Your task to perform on an android device: turn off location Image 0: 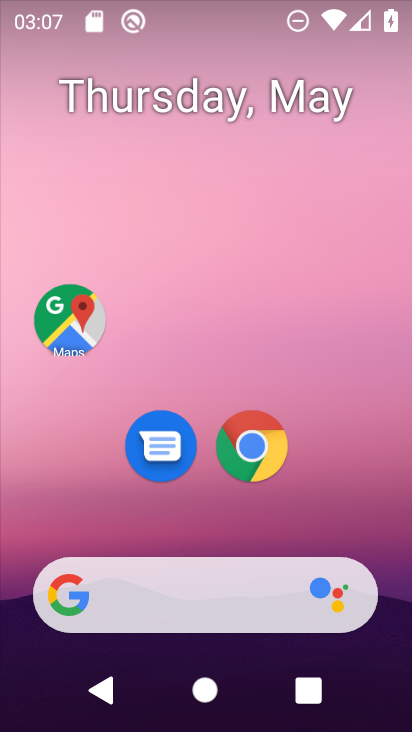
Step 0: drag from (368, 506) to (374, 42)
Your task to perform on an android device: turn off location Image 1: 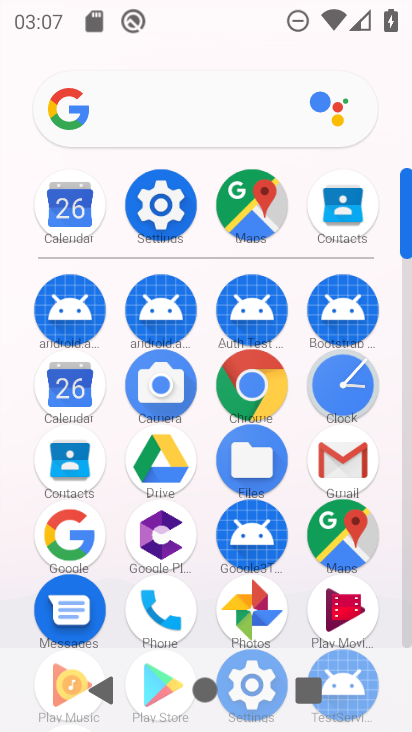
Step 1: click (159, 203)
Your task to perform on an android device: turn off location Image 2: 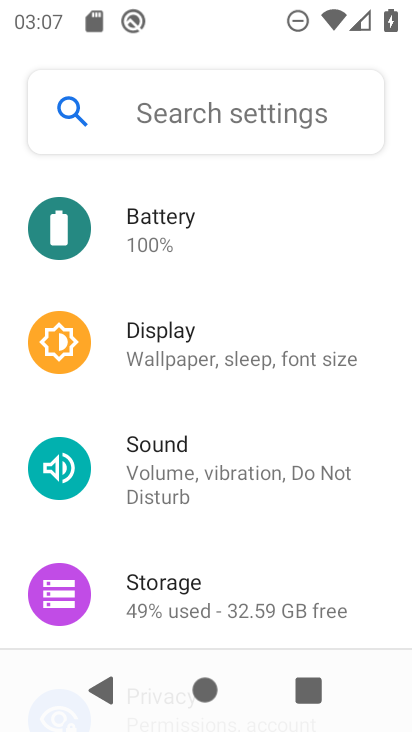
Step 2: drag from (235, 493) to (192, 148)
Your task to perform on an android device: turn off location Image 3: 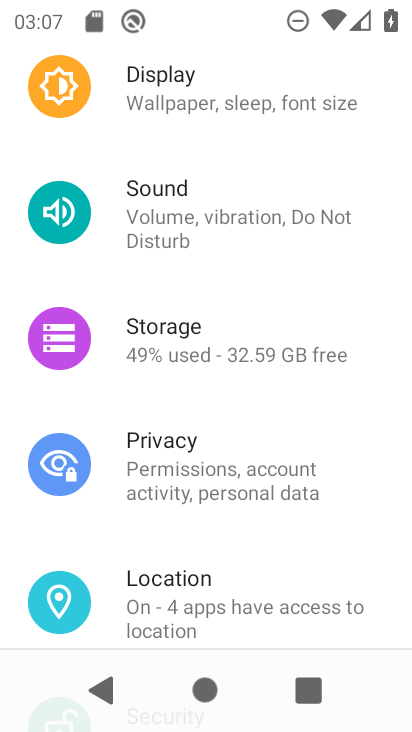
Step 3: click (175, 600)
Your task to perform on an android device: turn off location Image 4: 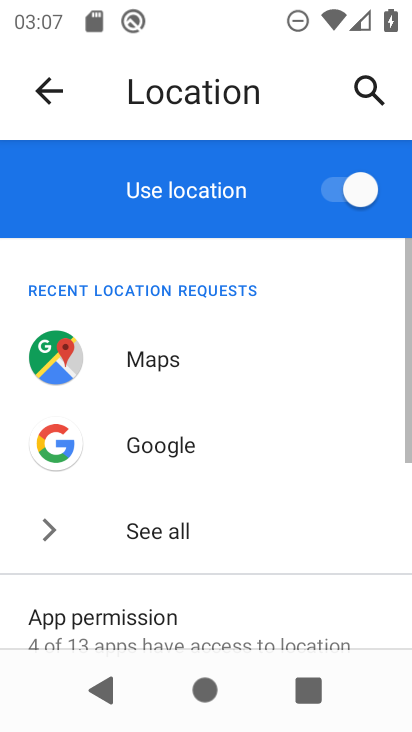
Step 4: click (350, 196)
Your task to perform on an android device: turn off location Image 5: 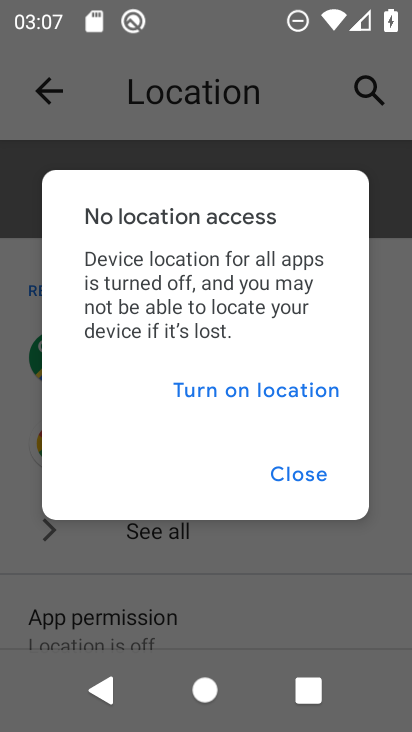
Step 5: click (295, 471)
Your task to perform on an android device: turn off location Image 6: 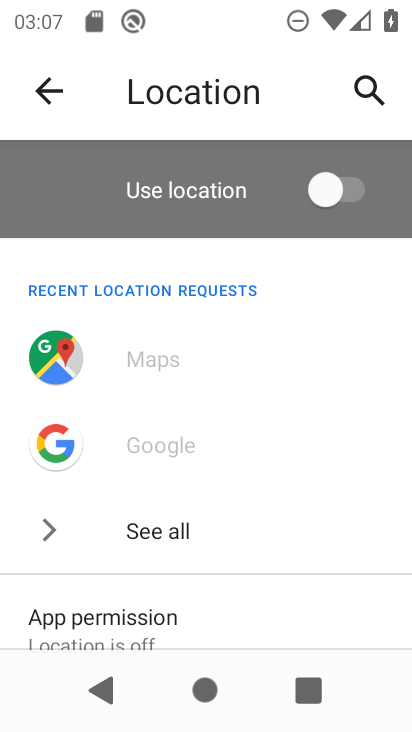
Step 6: task complete